Your task to perform on an android device: check battery use Image 0: 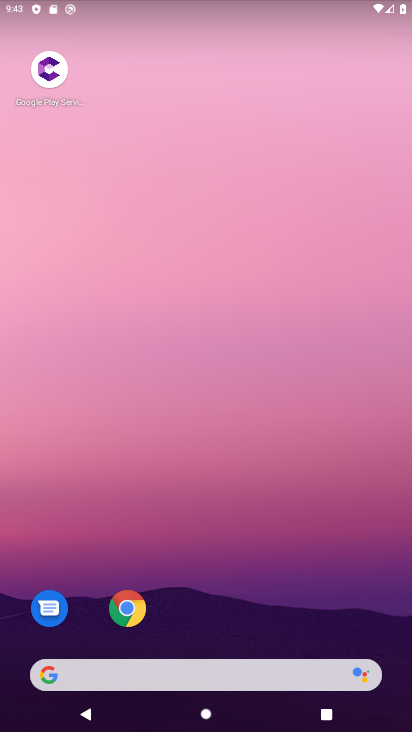
Step 0: drag from (197, 679) to (258, 160)
Your task to perform on an android device: check battery use Image 1: 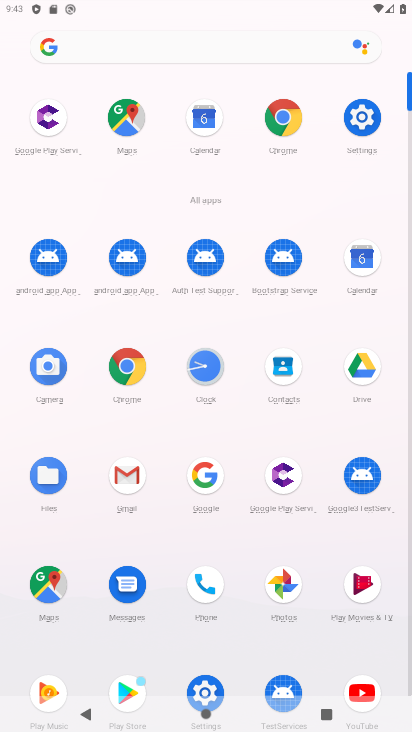
Step 1: click (362, 127)
Your task to perform on an android device: check battery use Image 2: 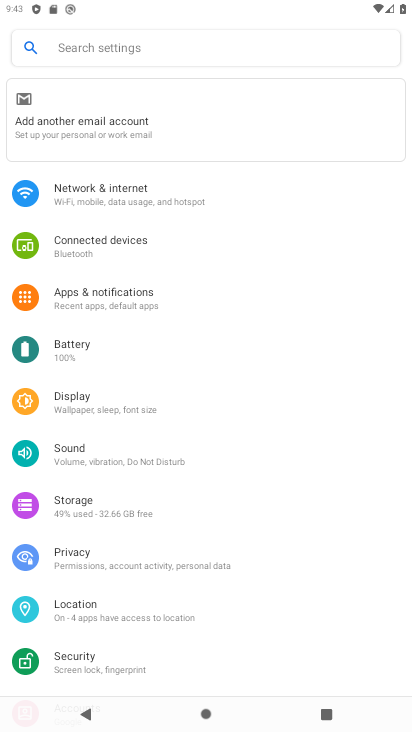
Step 2: click (64, 347)
Your task to perform on an android device: check battery use Image 3: 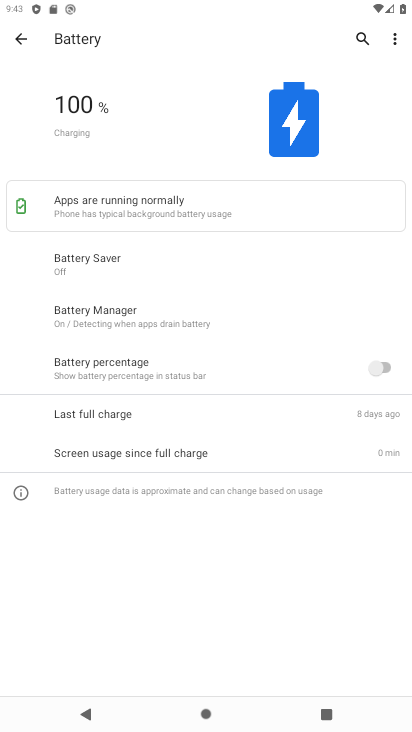
Step 3: click (396, 35)
Your task to perform on an android device: check battery use Image 4: 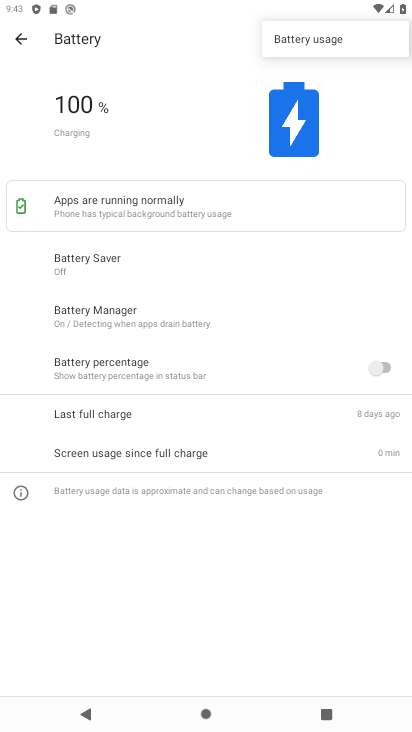
Step 4: click (306, 37)
Your task to perform on an android device: check battery use Image 5: 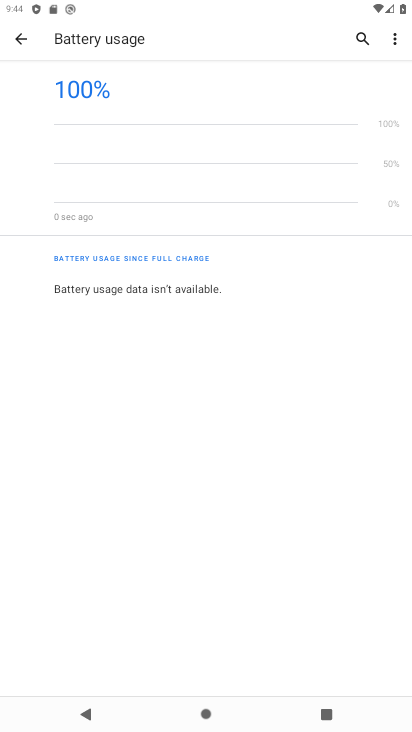
Step 5: task complete